Your task to perform on an android device: Open Wikipedia Image 0: 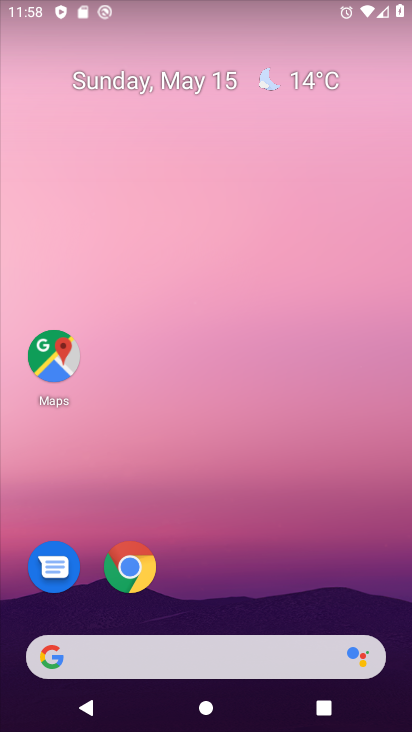
Step 0: click (125, 570)
Your task to perform on an android device: Open Wikipedia Image 1: 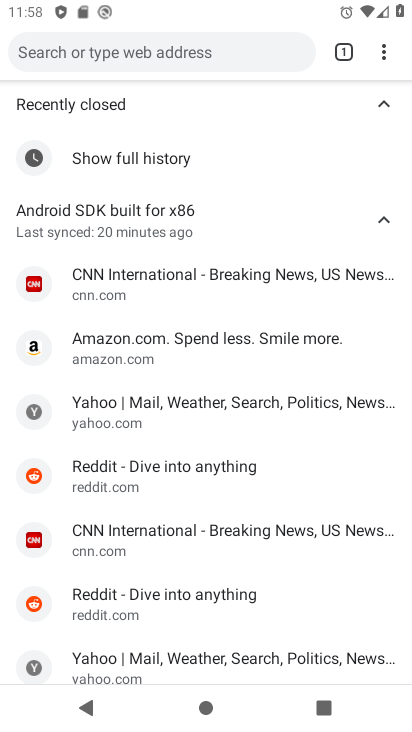
Step 1: click (149, 56)
Your task to perform on an android device: Open Wikipedia Image 2: 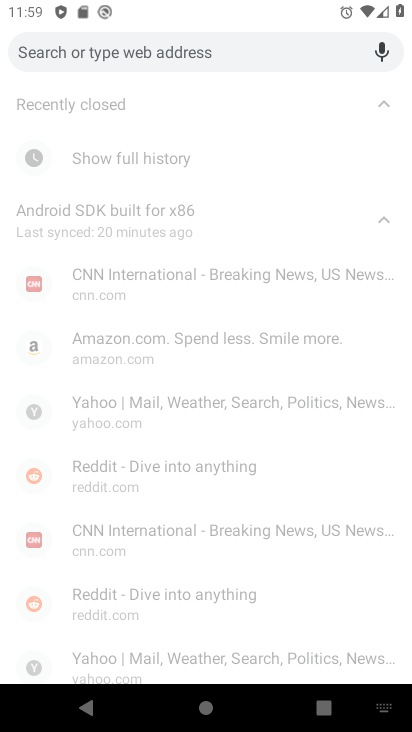
Step 2: type "wikipedia"
Your task to perform on an android device: Open Wikipedia Image 3: 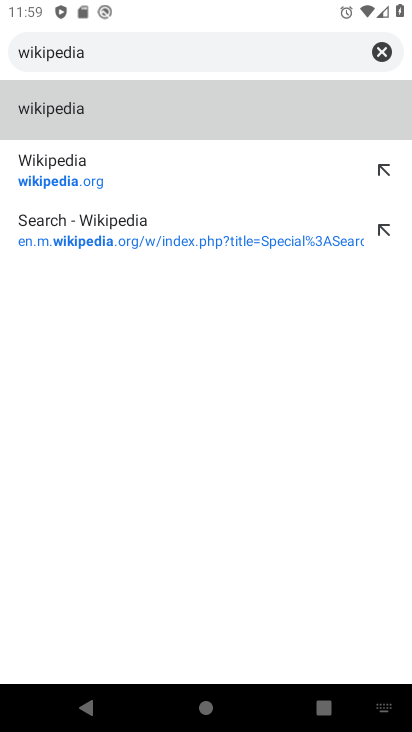
Step 3: click (77, 105)
Your task to perform on an android device: Open Wikipedia Image 4: 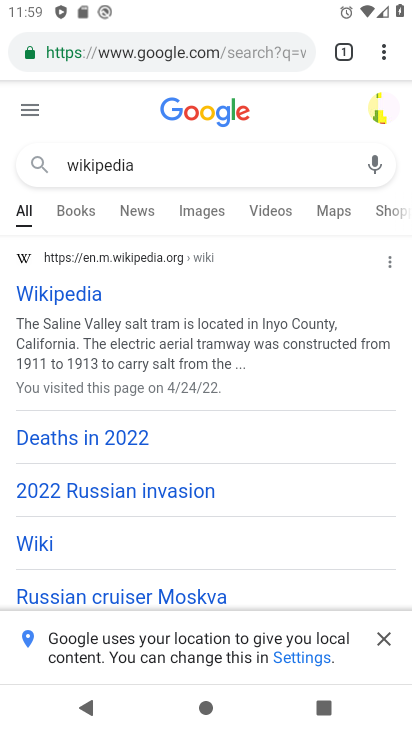
Step 4: click (48, 290)
Your task to perform on an android device: Open Wikipedia Image 5: 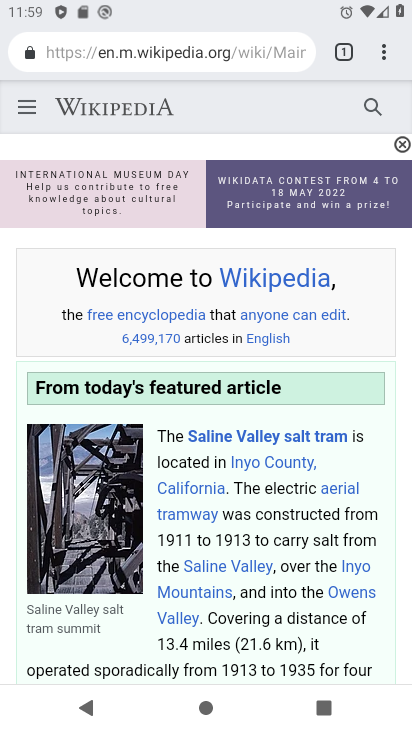
Step 5: task complete